Your task to perform on an android device: Check the weather Image 0: 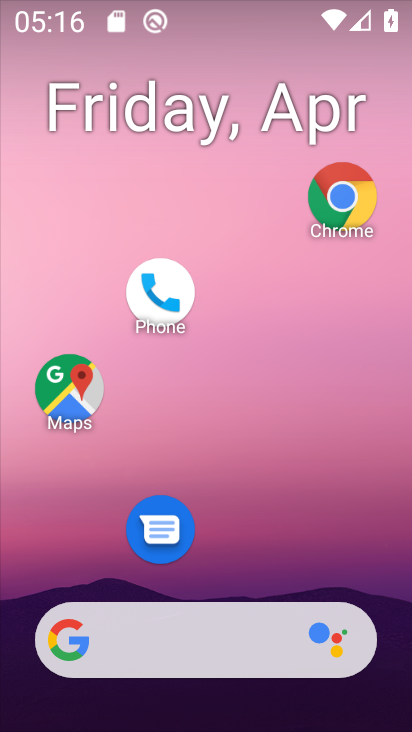
Step 0: drag from (225, 252) to (410, 252)
Your task to perform on an android device: Check the weather Image 1: 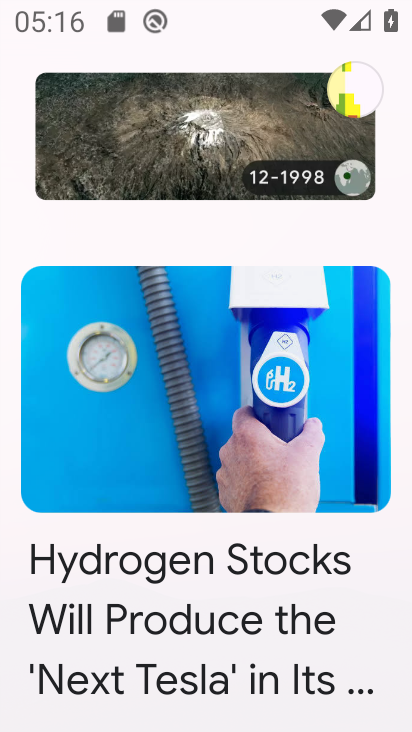
Step 1: task complete